Your task to perform on an android device: Go to Yahoo.com Image 0: 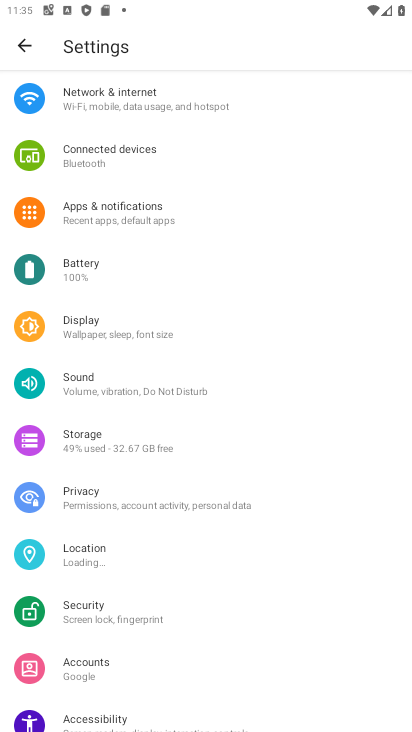
Step 0: press home button
Your task to perform on an android device: Go to Yahoo.com Image 1: 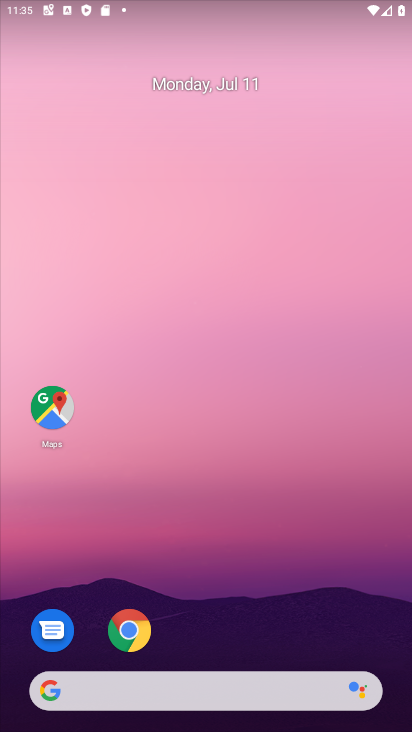
Step 1: click (127, 627)
Your task to perform on an android device: Go to Yahoo.com Image 2: 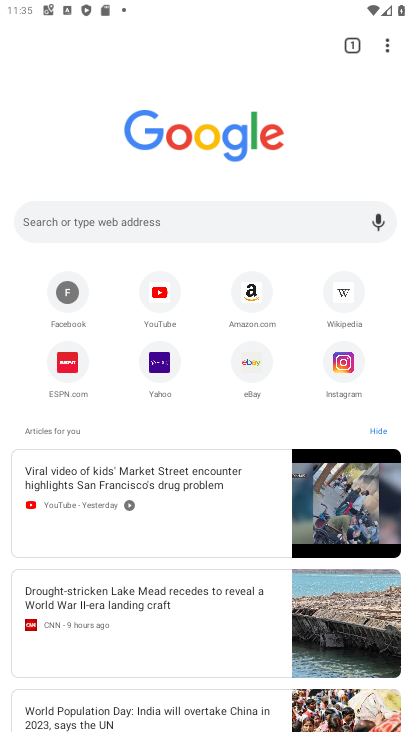
Step 2: click (98, 231)
Your task to perform on an android device: Go to Yahoo.com Image 3: 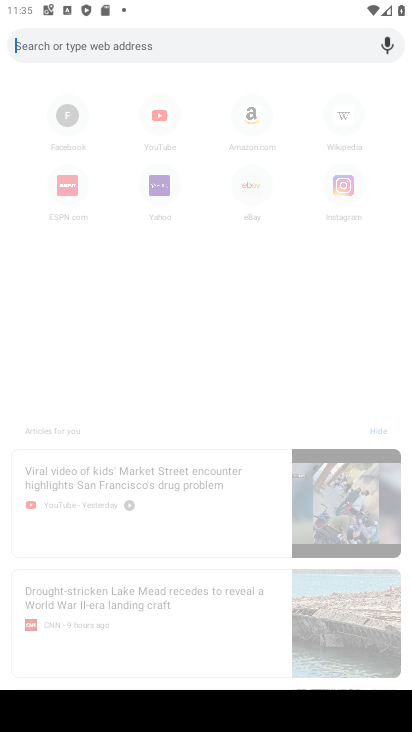
Step 3: type "Yahoo.com"
Your task to perform on an android device: Go to Yahoo.com Image 4: 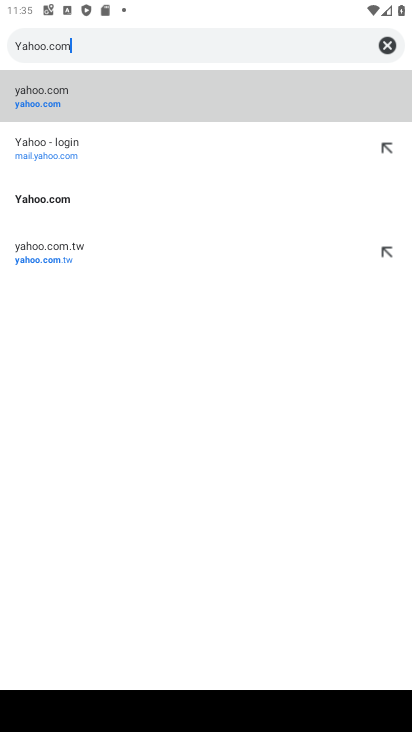
Step 4: click (34, 92)
Your task to perform on an android device: Go to Yahoo.com Image 5: 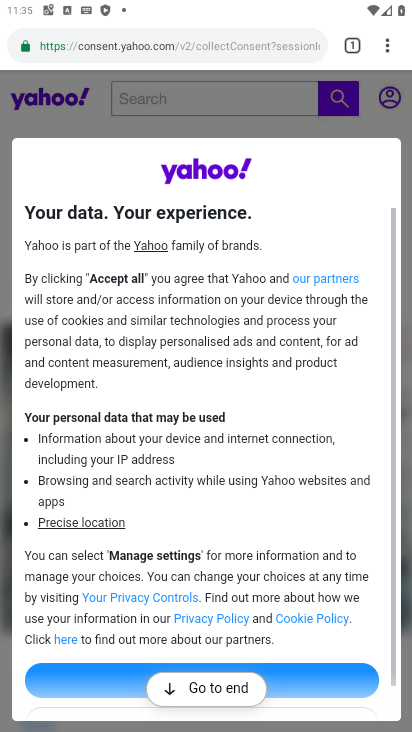
Step 5: click (193, 684)
Your task to perform on an android device: Go to Yahoo.com Image 6: 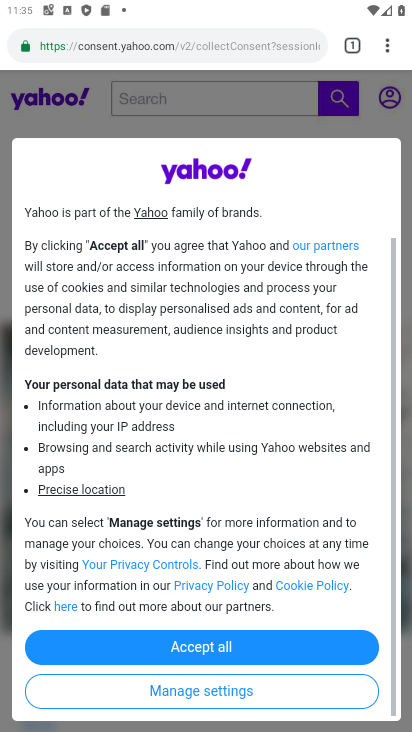
Step 6: click (207, 649)
Your task to perform on an android device: Go to Yahoo.com Image 7: 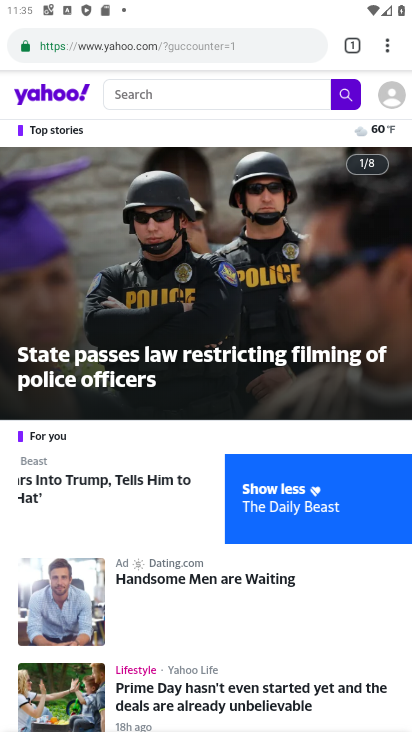
Step 7: task complete